Your task to perform on an android device: change the clock style Image 0: 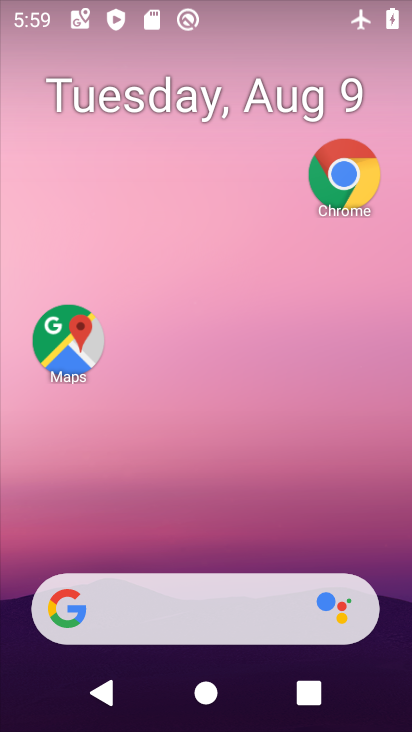
Step 0: drag from (247, 485) to (253, 257)
Your task to perform on an android device: change the clock style Image 1: 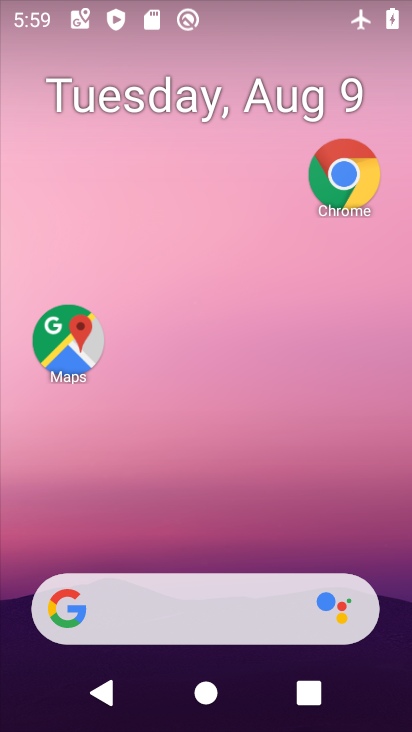
Step 1: drag from (228, 559) to (272, 94)
Your task to perform on an android device: change the clock style Image 2: 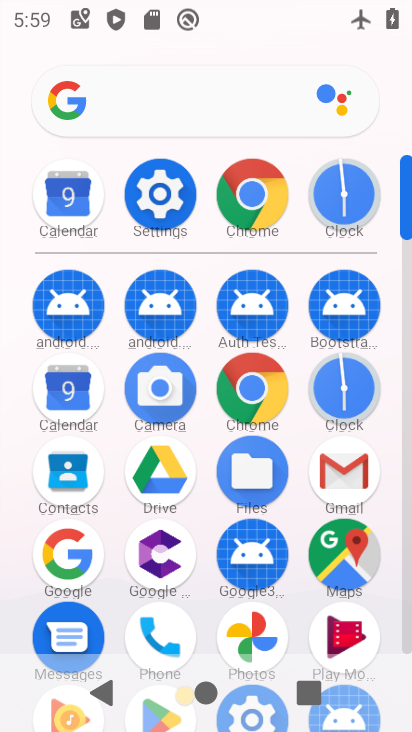
Step 2: drag from (187, 610) to (259, 121)
Your task to perform on an android device: change the clock style Image 3: 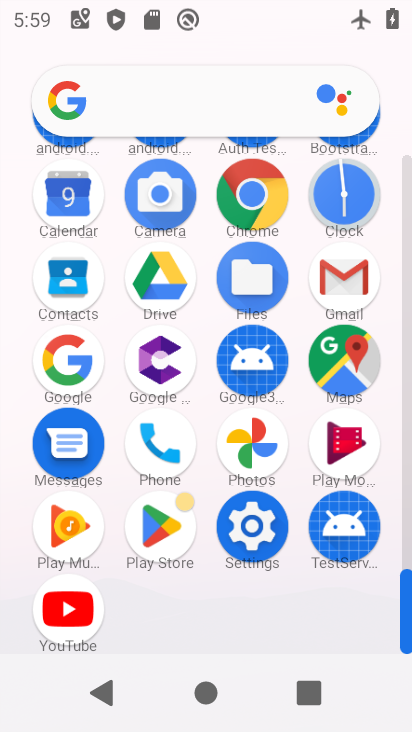
Step 3: click (329, 213)
Your task to perform on an android device: change the clock style Image 4: 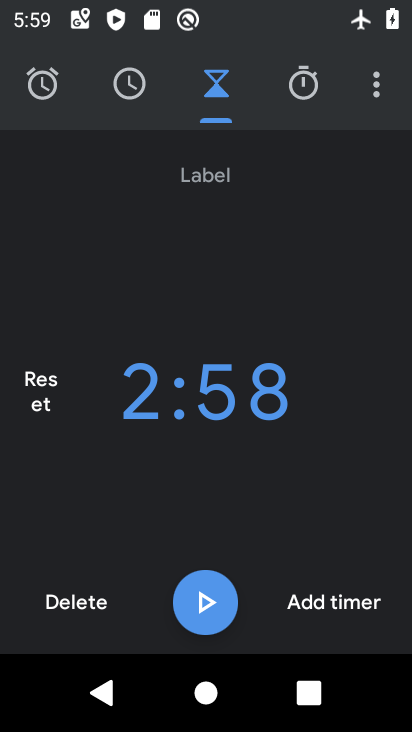
Step 4: drag from (364, 86) to (295, 134)
Your task to perform on an android device: change the clock style Image 5: 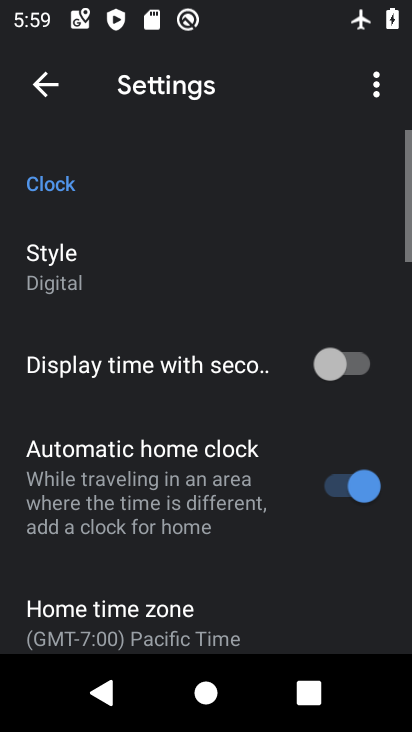
Step 5: drag from (135, 423) to (180, 157)
Your task to perform on an android device: change the clock style Image 6: 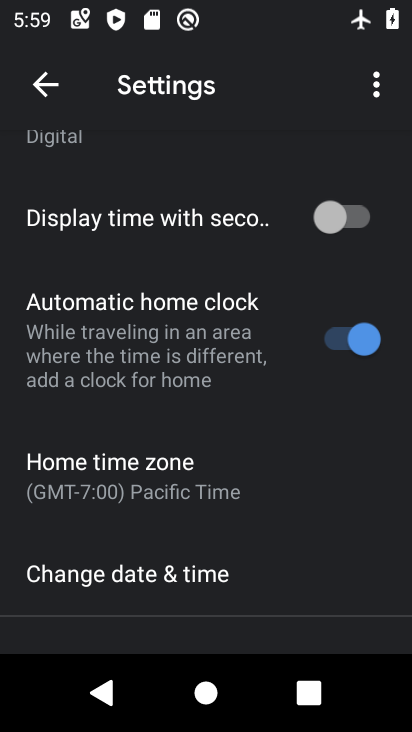
Step 6: drag from (149, 182) to (227, 726)
Your task to perform on an android device: change the clock style Image 7: 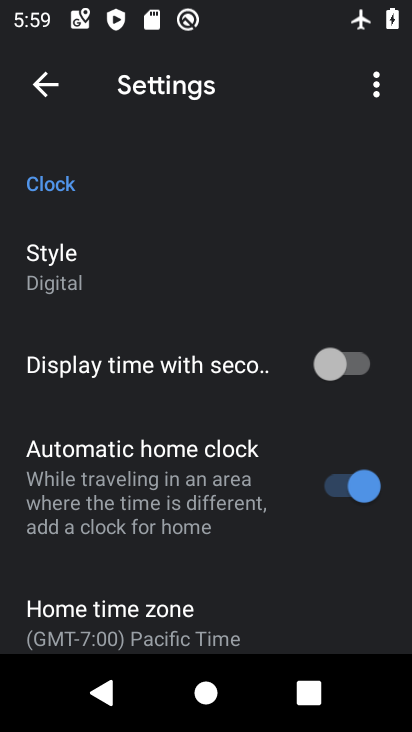
Step 7: click (83, 289)
Your task to perform on an android device: change the clock style Image 8: 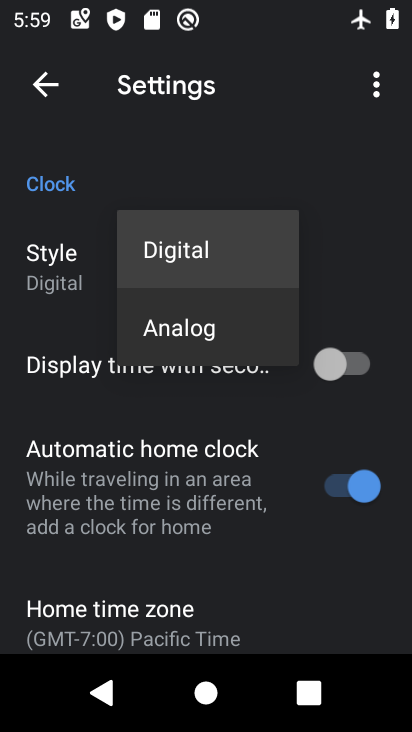
Step 8: click (165, 329)
Your task to perform on an android device: change the clock style Image 9: 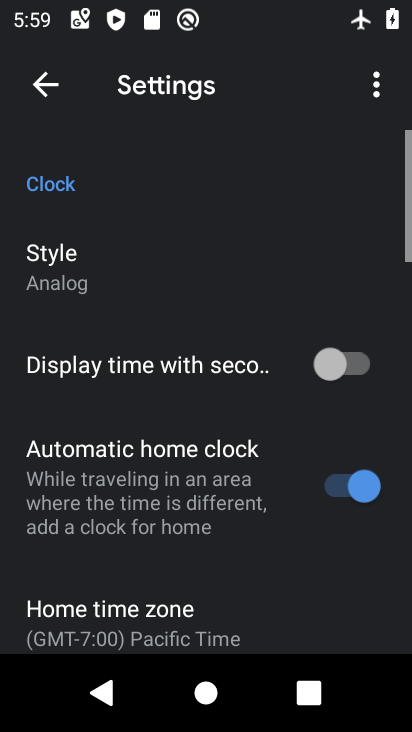
Step 9: task complete